Your task to perform on an android device: Open calendar and show me the fourth week of next month Image 0: 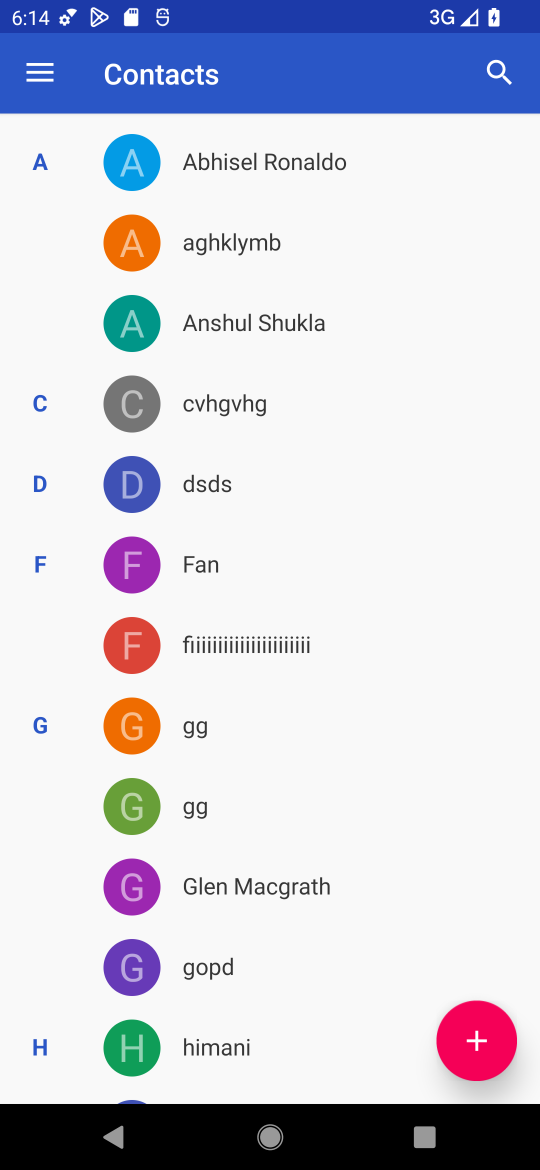
Step 0: press home button
Your task to perform on an android device: Open calendar and show me the fourth week of next month Image 1: 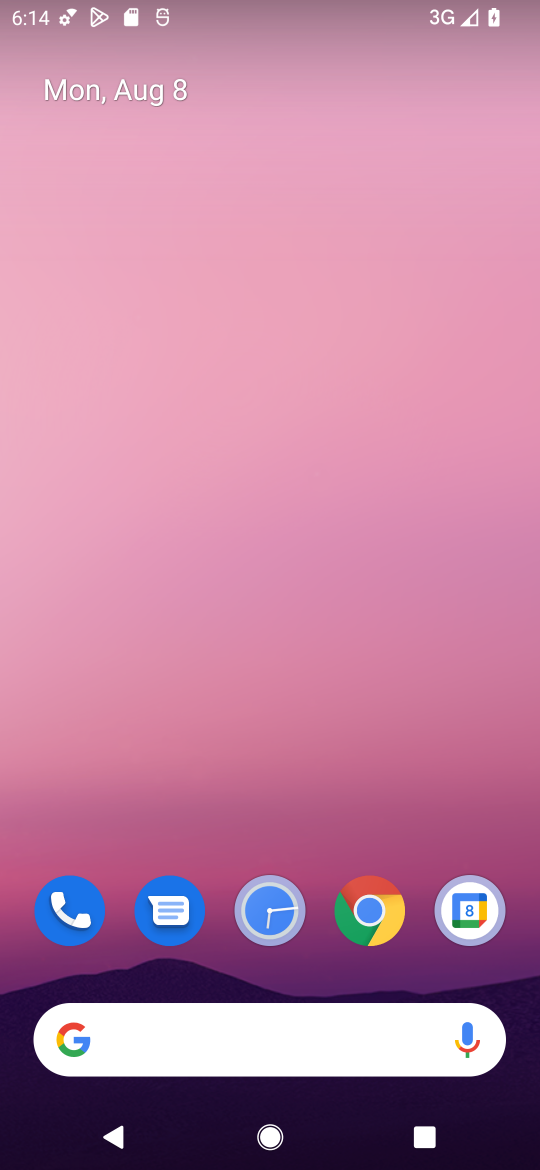
Step 1: click (456, 917)
Your task to perform on an android device: Open calendar and show me the fourth week of next month Image 2: 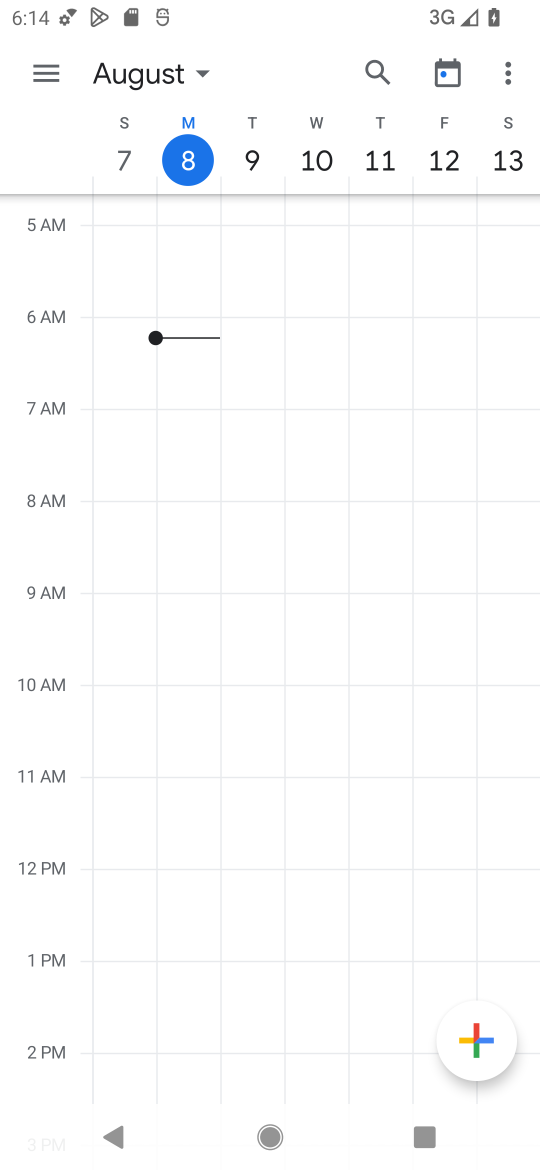
Step 2: click (44, 84)
Your task to perform on an android device: Open calendar and show me the fourth week of next month Image 3: 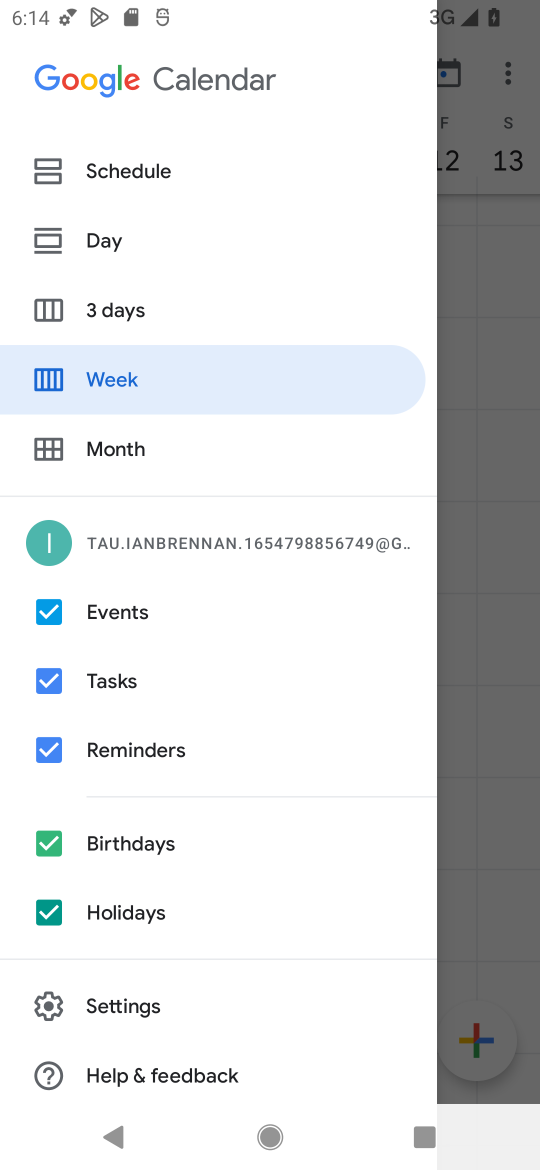
Step 3: click (448, 106)
Your task to perform on an android device: Open calendar and show me the fourth week of next month Image 4: 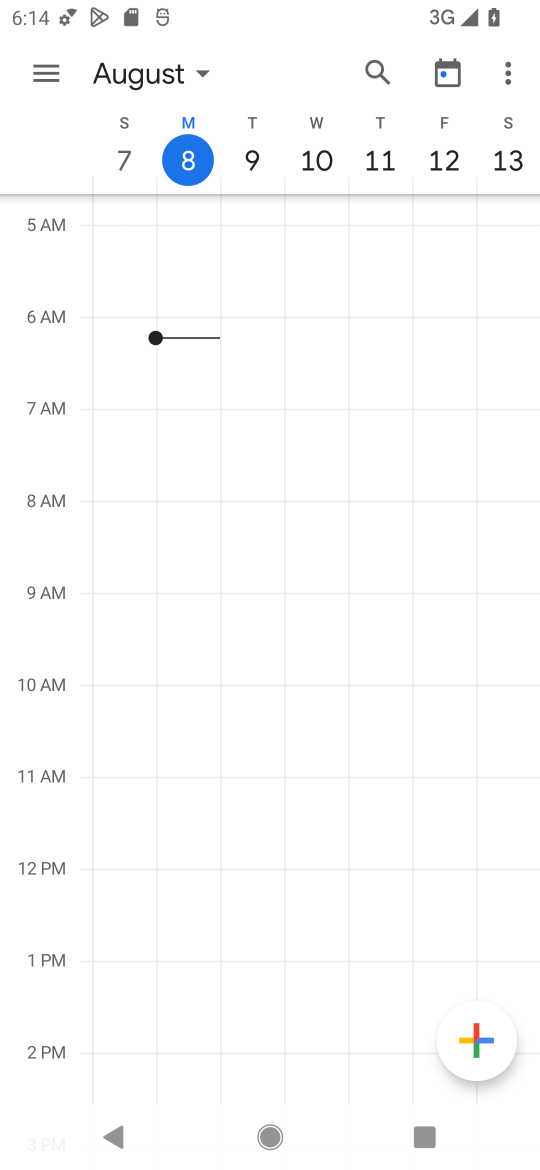
Step 4: click (200, 72)
Your task to perform on an android device: Open calendar and show me the fourth week of next month Image 5: 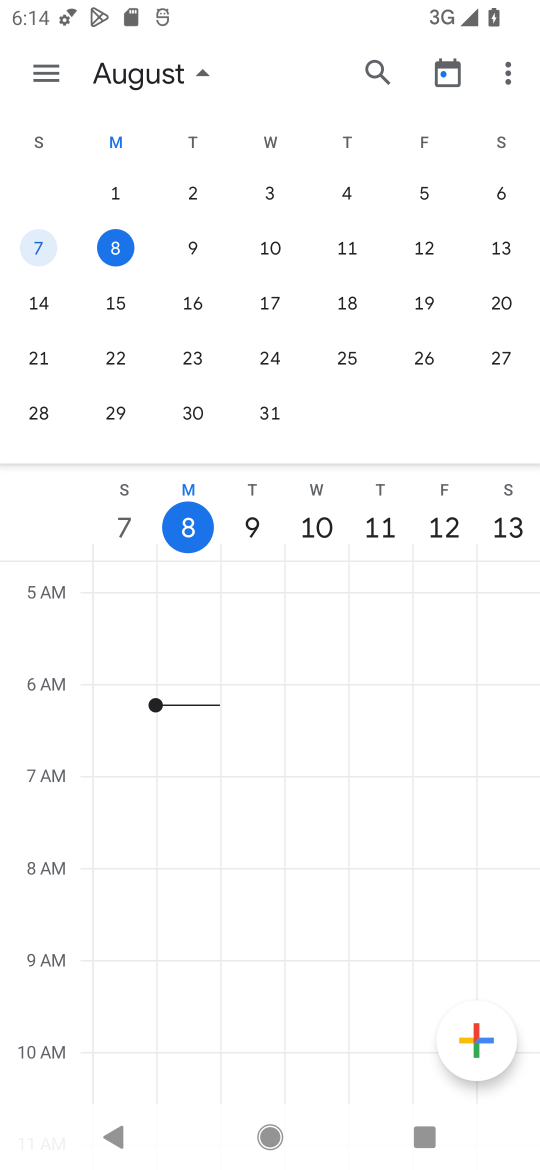
Step 5: task complete